Your task to perform on an android device: Open calendar and show me the first week of next month Image 0: 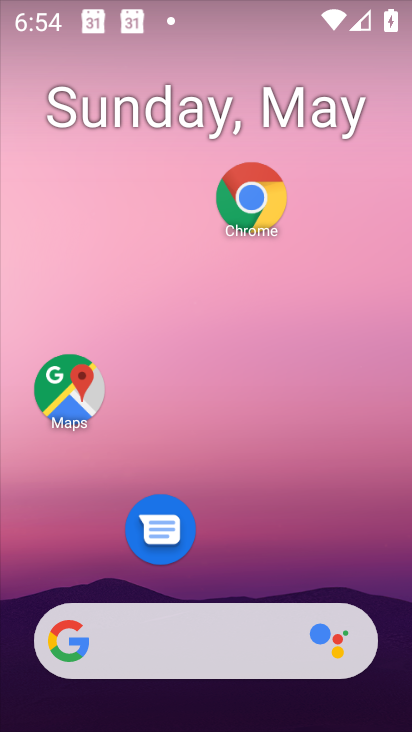
Step 0: drag from (217, 568) to (248, 243)
Your task to perform on an android device: Open calendar and show me the first week of next month Image 1: 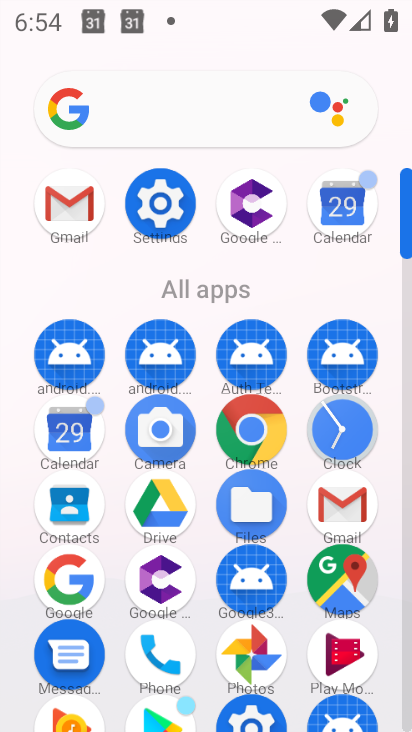
Step 1: click (75, 433)
Your task to perform on an android device: Open calendar and show me the first week of next month Image 2: 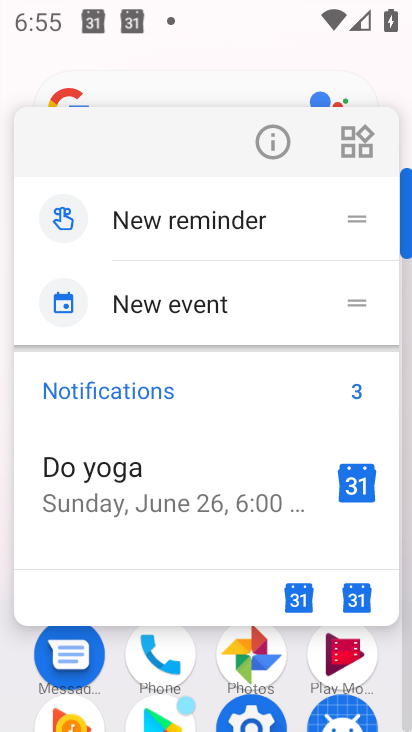
Step 2: click (269, 142)
Your task to perform on an android device: Open calendar and show me the first week of next month Image 3: 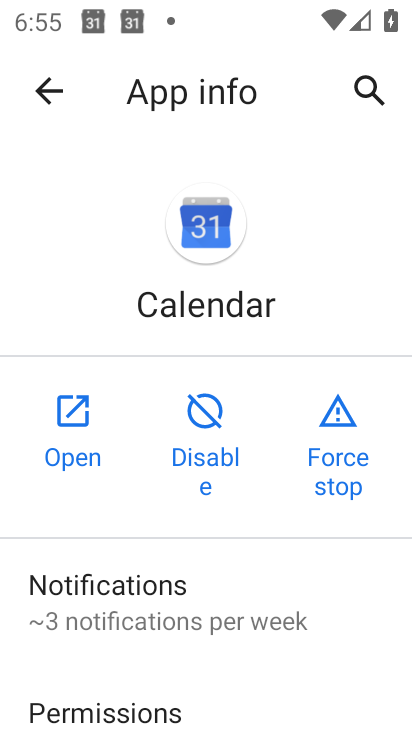
Step 3: click (78, 433)
Your task to perform on an android device: Open calendar and show me the first week of next month Image 4: 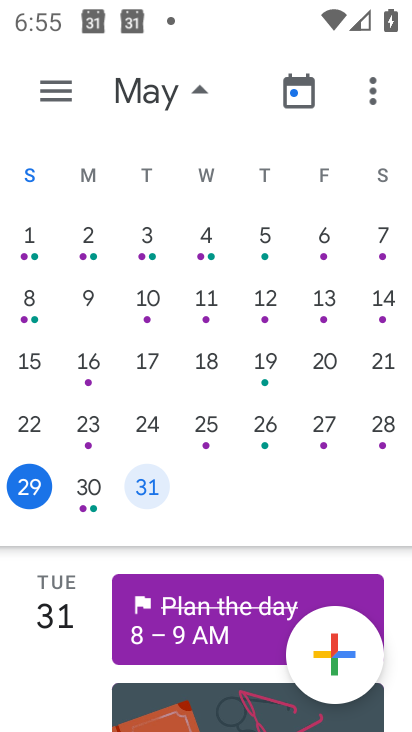
Step 4: drag from (400, 389) to (7, 368)
Your task to perform on an android device: Open calendar and show me the first week of next month Image 5: 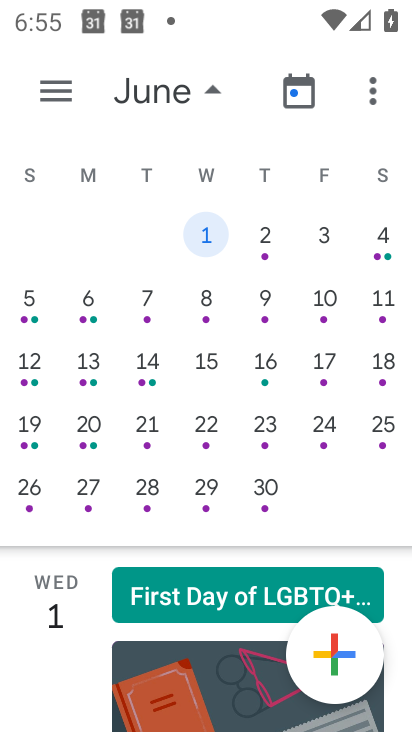
Step 5: click (213, 232)
Your task to perform on an android device: Open calendar and show me the first week of next month Image 6: 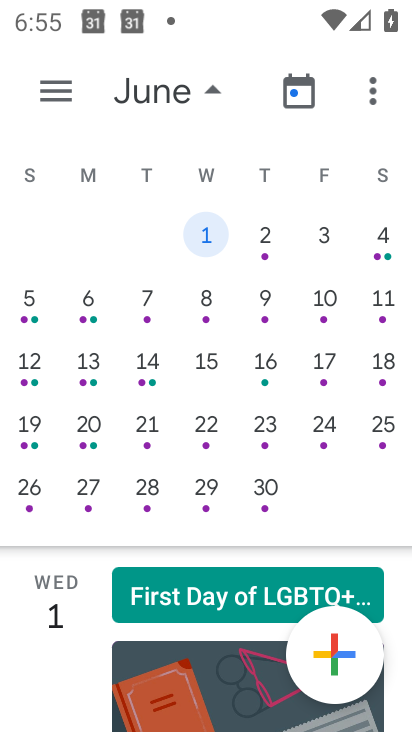
Step 6: click (281, 240)
Your task to perform on an android device: Open calendar and show me the first week of next month Image 7: 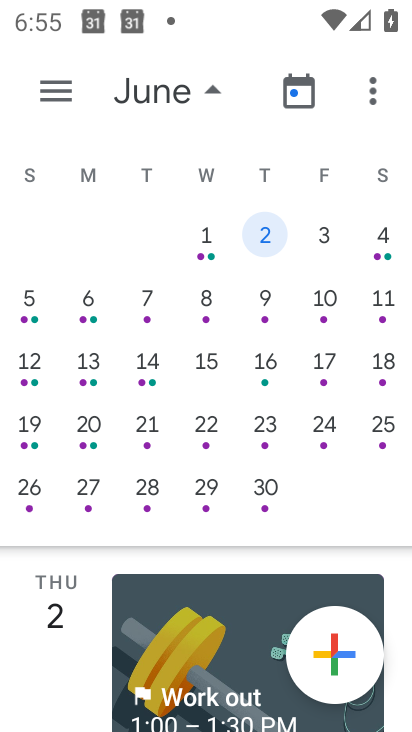
Step 7: click (326, 229)
Your task to perform on an android device: Open calendar and show me the first week of next month Image 8: 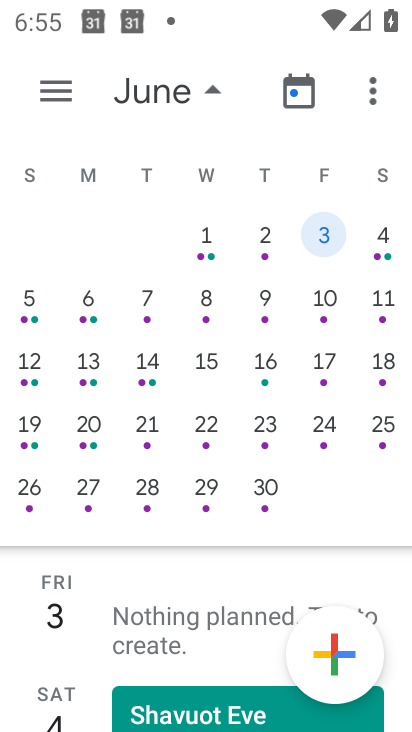
Step 8: click (379, 239)
Your task to perform on an android device: Open calendar and show me the first week of next month Image 9: 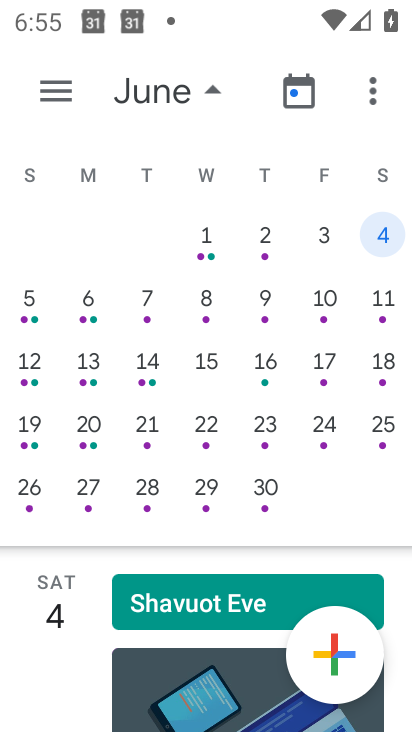
Step 9: task complete